Your task to perform on an android device: change alarm snooze length Image 0: 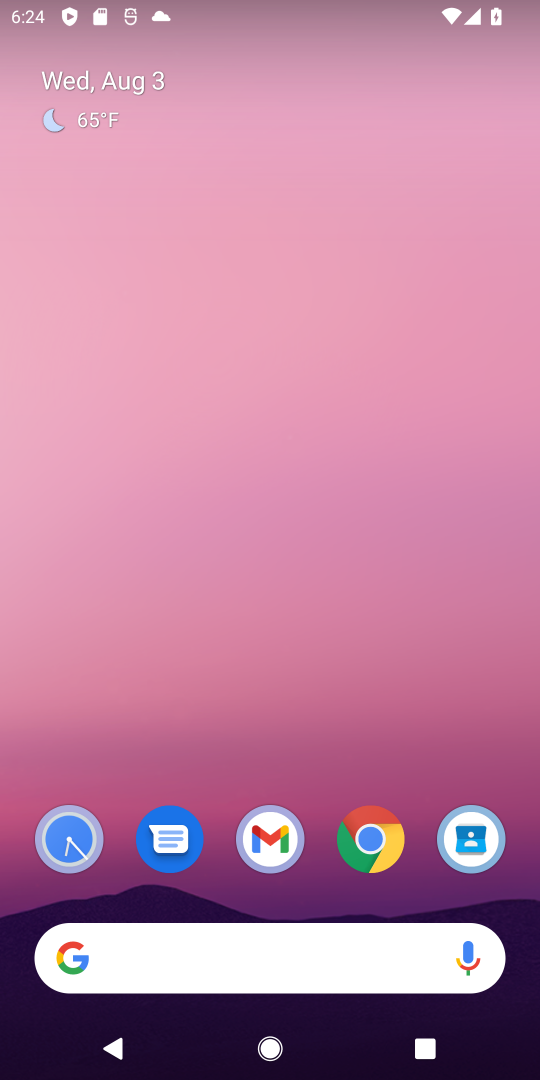
Step 0: drag from (208, 639) to (362, 4)
Your task to perform on an android device: change alarm snooze length Image 1: 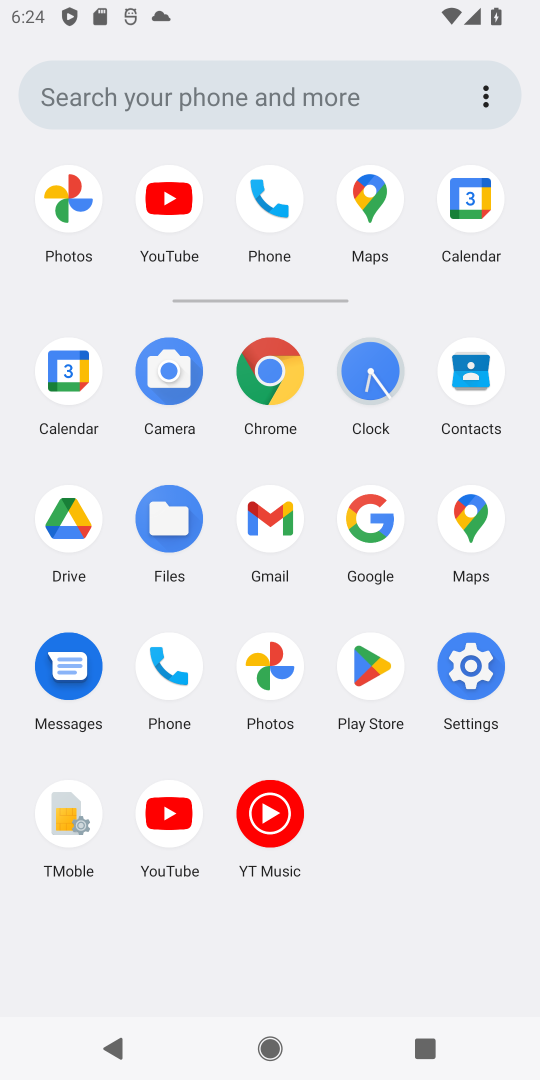
Step 1: click (371, 375)
Your task to perform on an android device: change alarm snooze length Image 2: 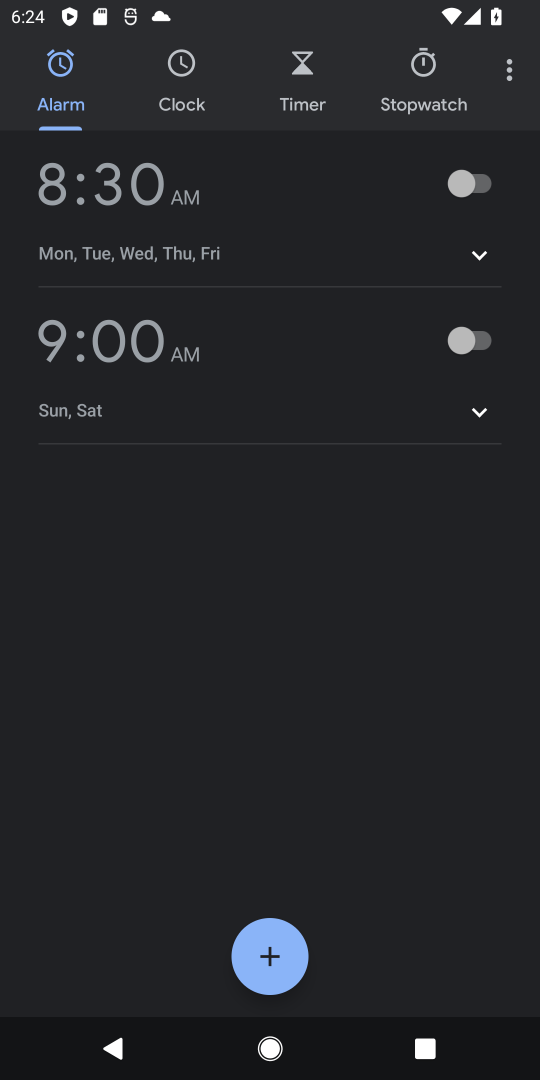
Step 2: click (506, 69)
Your task to perform on an android device: change alarm snooze length Image 3: 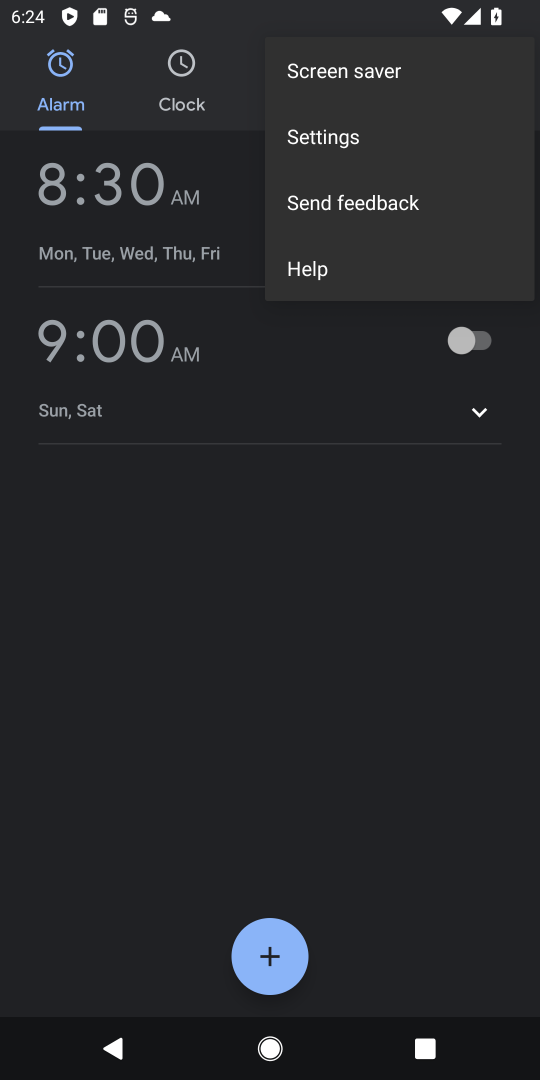
Step 3: click (361, 138)
Your task to perform on an android device: change alarm snooze length Image 4: 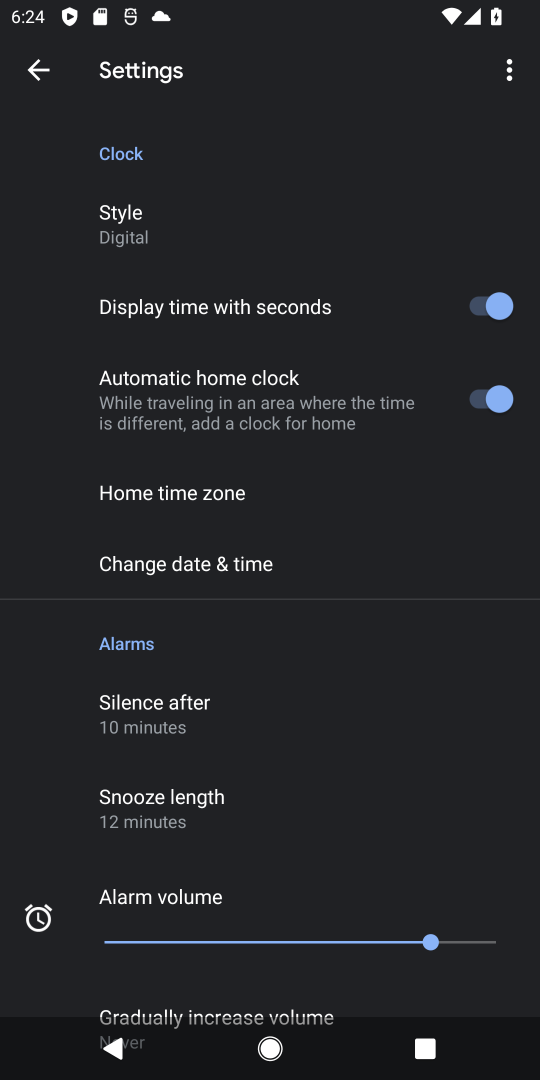
Step 4: click (203, 800)
Your task to perform on an android device: change alarm snooze length Image 5: 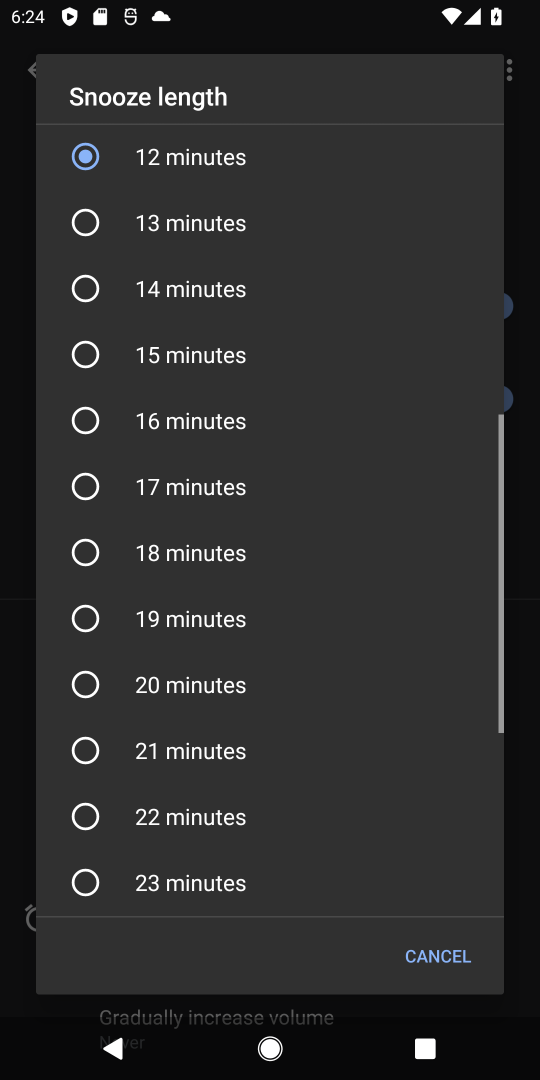
Step 5: click (85, 218)
Your task to perform on an android device: change alarm snooze length Image 6: 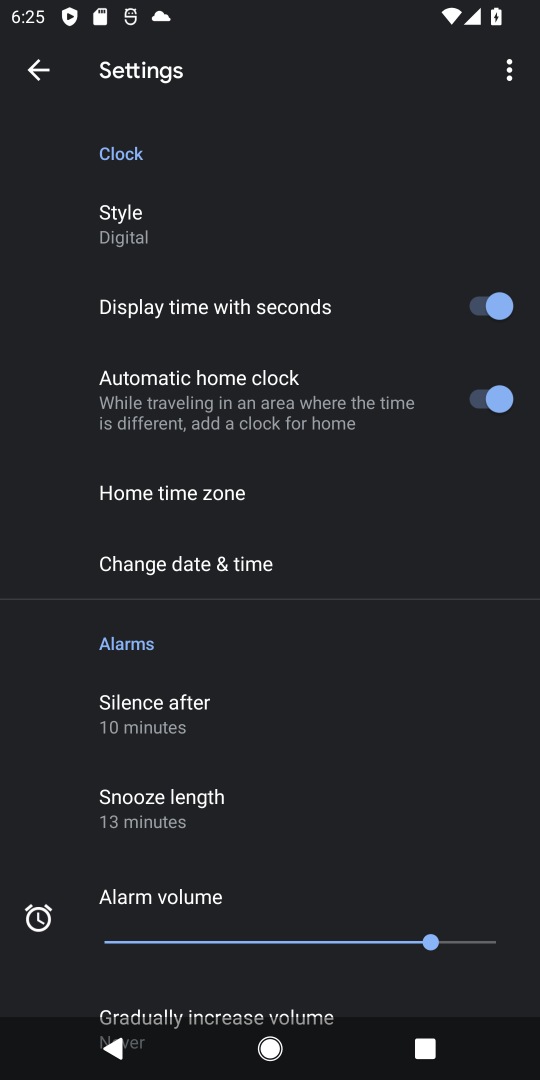
Step 6: task complete